Your task to perform on an android device: Open privacy settings Image 0: 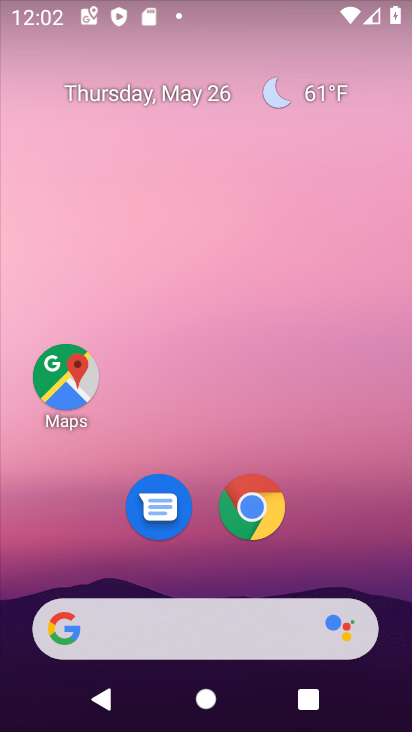
Step 0: drag from (344, 562) to (300, 55)
Your task to perform on an android device: Open privacy settings Image 1: 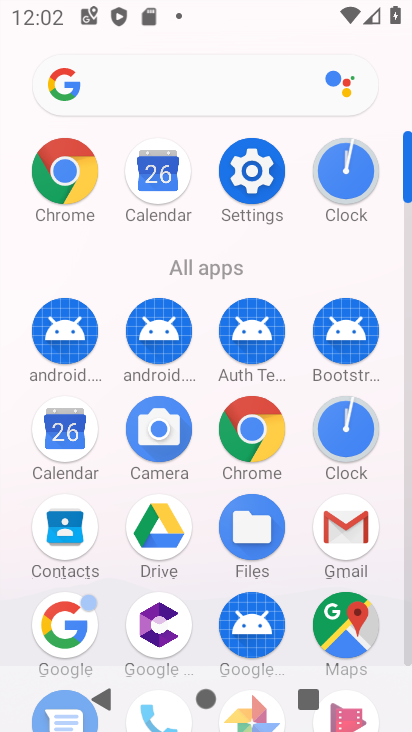
Step 1: click (272, 186)
Your task to perform on an android device: Open privacy settings Image 2: 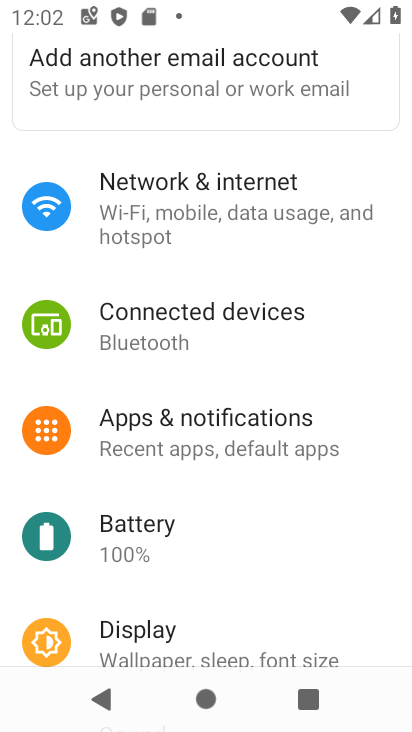
Step 2: drag from (205, 589) to (255, 187)
Your task to perform on an android device: Open privacy settings Image 3: 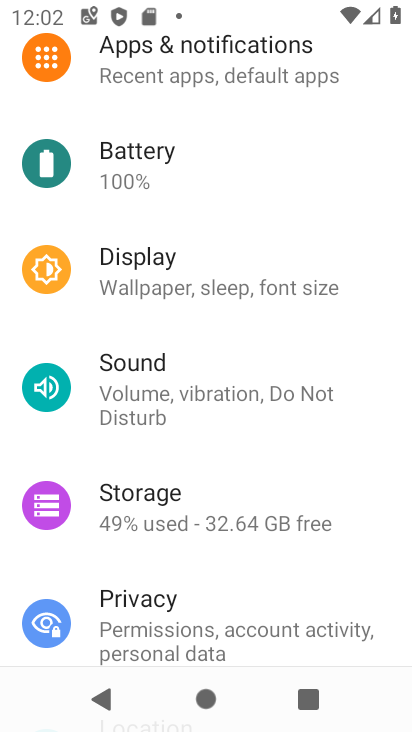
Step 3: click (252, 596)
Your task to perform on an android device: Open privacy settings Image 4: 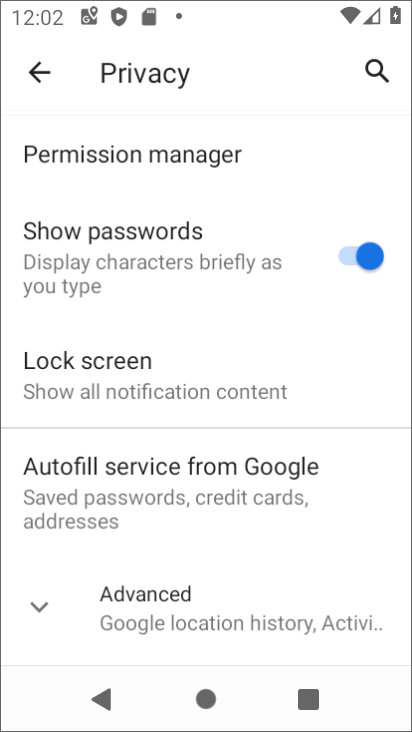
Step 4: task complete